Your task to perform on an android device: toggle location history Image 0: 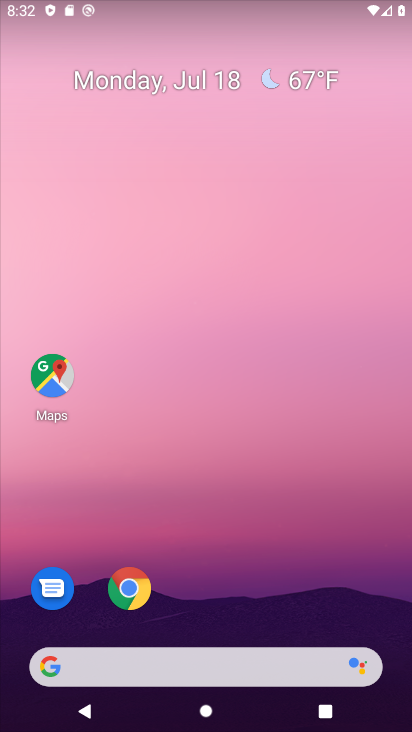
Step 0: click (57, 377)
Your task to perform on an android device: toggle location history Image 1: 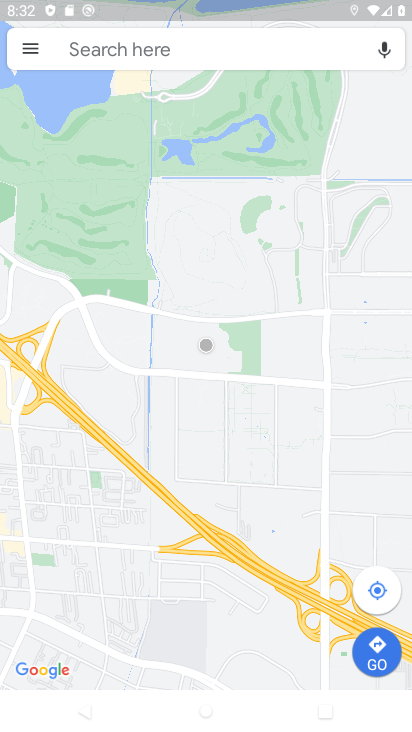
Step 1: click (25, 46)
Your task to perform on an android device: toggle location history Image 2: 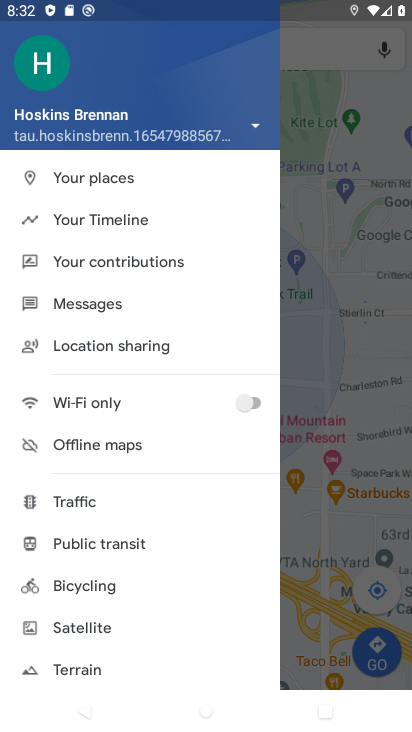
Step 2: drag from (164, 633) to (172, 289)
Your task to perform on an android device: toggle location history Image 3: 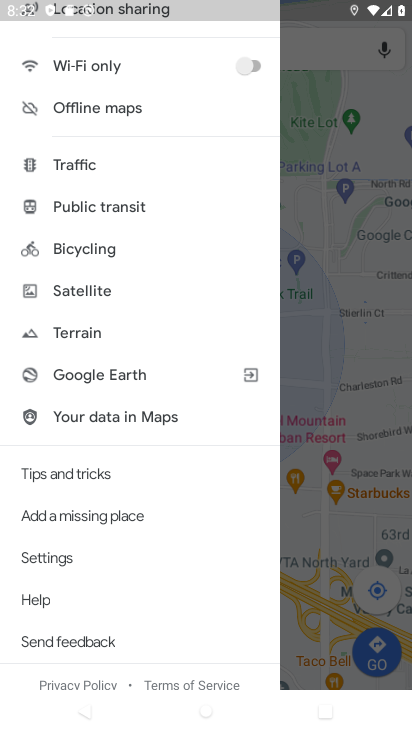
Step 3: click (32, 547)
Your task to perform on an android device: toggle location history Image 4: 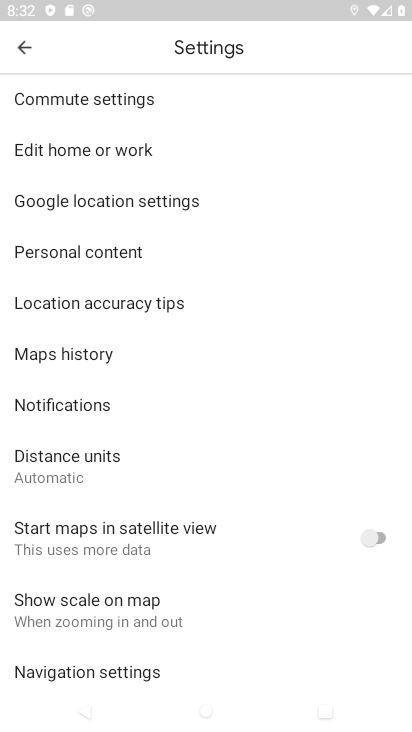
Step 4: click (78, 251)
Your task to perform on an android device: toggle location history Image 5: 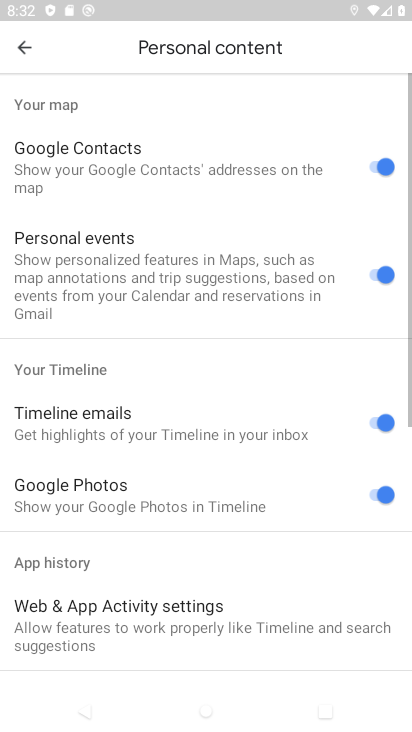
Step 5: drag from (223, 562) to (229, 185)
Your task to perform on an android device: toggle location history Image 6: 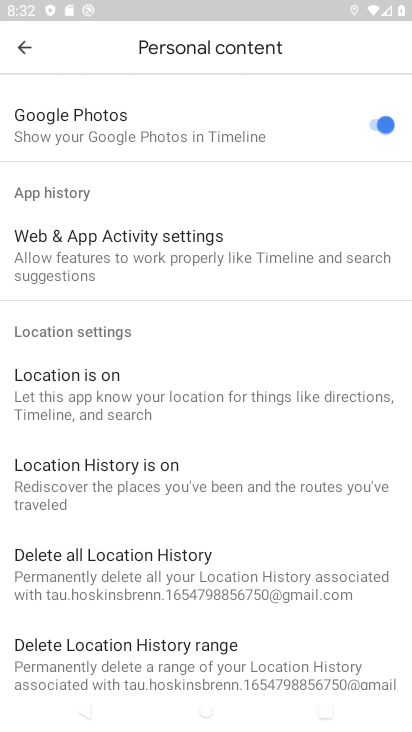
Step 6: click (80, 473)
Your task to perform on an android device: toggle location history Image 7: 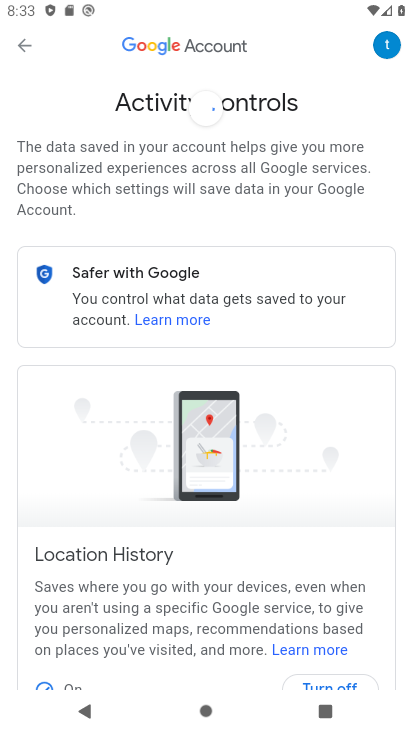
Step 7: drag from (333, 559) to (322, 268)
Your task to perform on an android device: toggle location history Image 8: 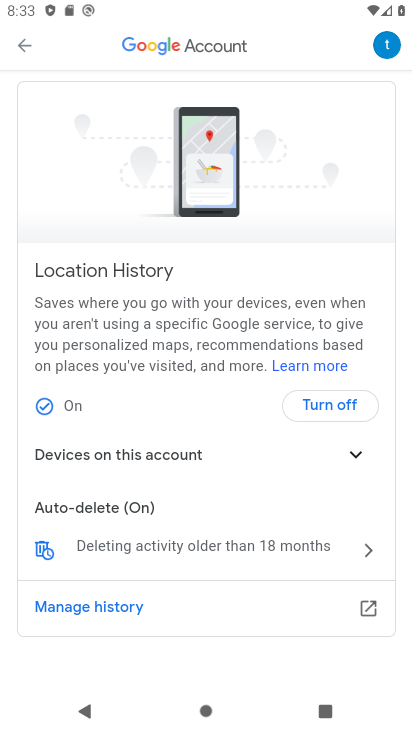
Step 8: click (326, 406)
Your task to perform on an android device: toggle location history Image 9: 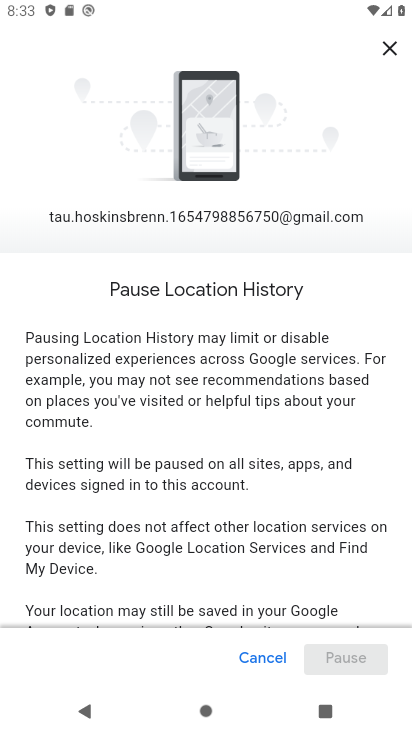
Step 9: drag from (325, 568) to (313, 64)
Your task to perform on an android device: toggle location history Image 10: 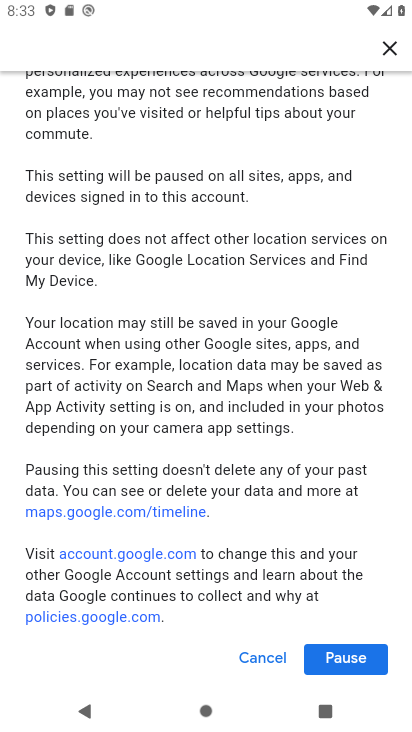
Step 10: click (348, 655)
Your task to perform on an android device: toggle location history Image 11: 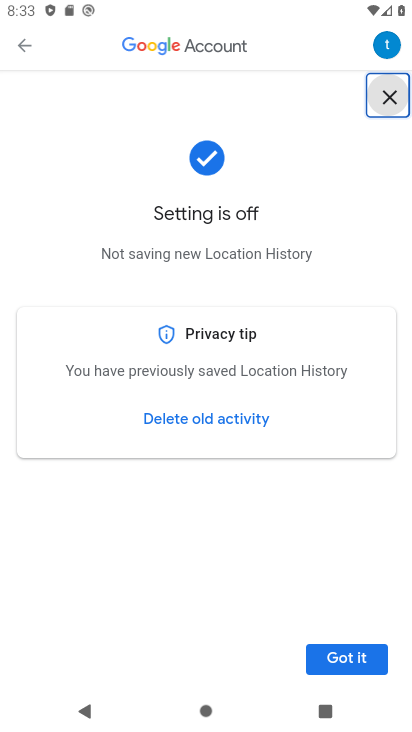
Step 11: click (343, 659)
Your task to perform on an android device: toggle location history Image 12: 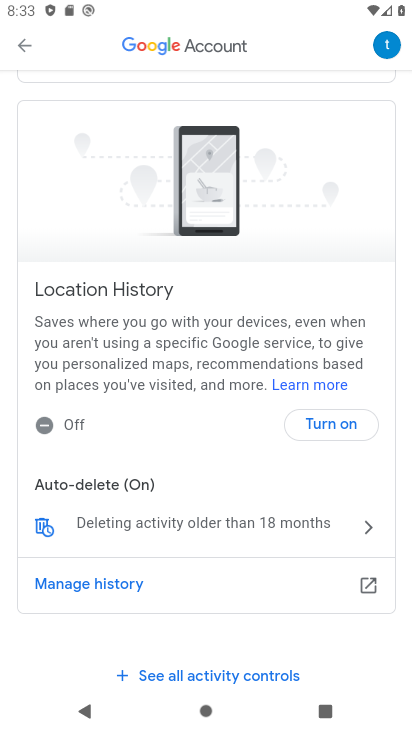
Step 12: task complete